Your task to perform on an android device: Do I have any events this weekend? Image 0: 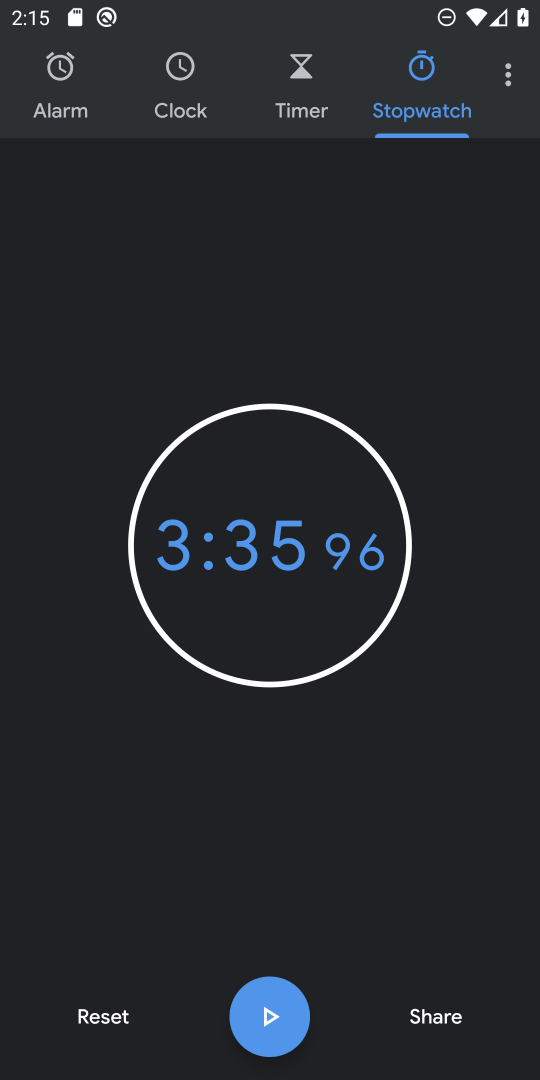
Step 0: press home button
Your task to perform on an android device: Do I have any events this weekend? Image 1: 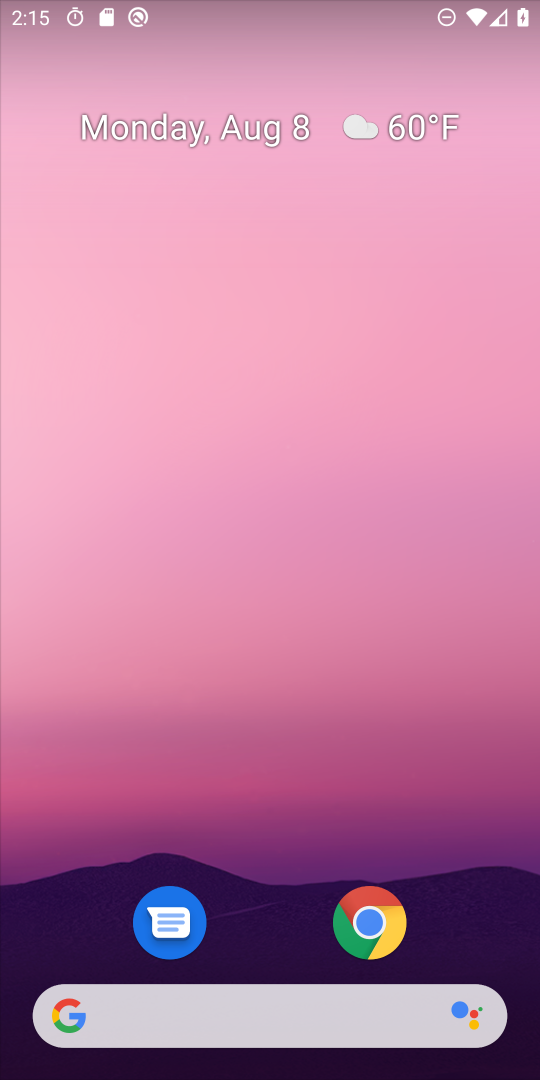
Step 1: drag from (256, 863) to (308, 235)
Your task to perform on an android device: Do I have any events this weekend? Image 2: 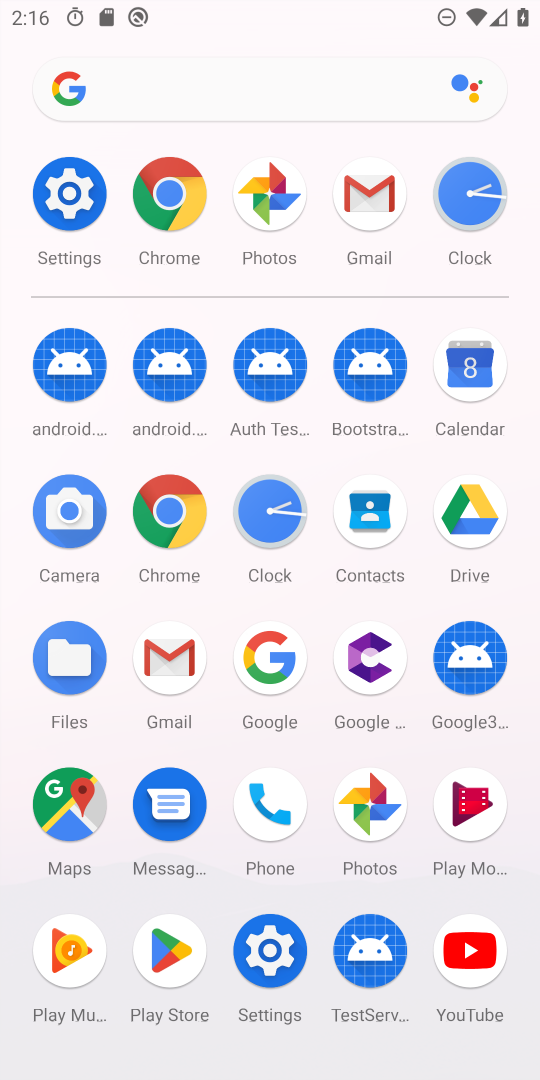
Step 2: click (478, 362)
Your task to perform on an android device: Do I have any events this weekend? Image 3: 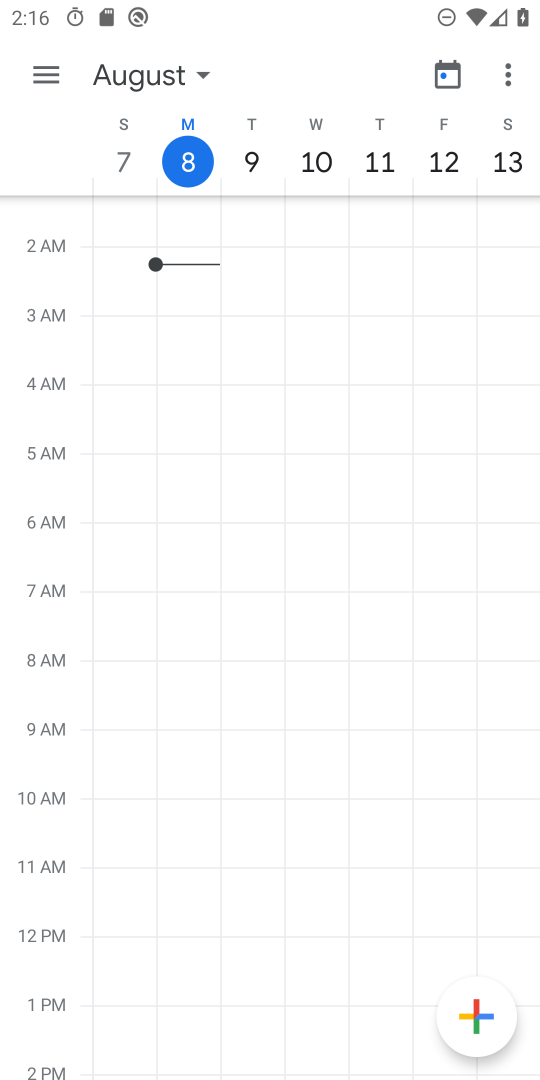
Step 3: click (522, 153)
Your task to perform on an android device: Do I have any events this weekend? Image 4: 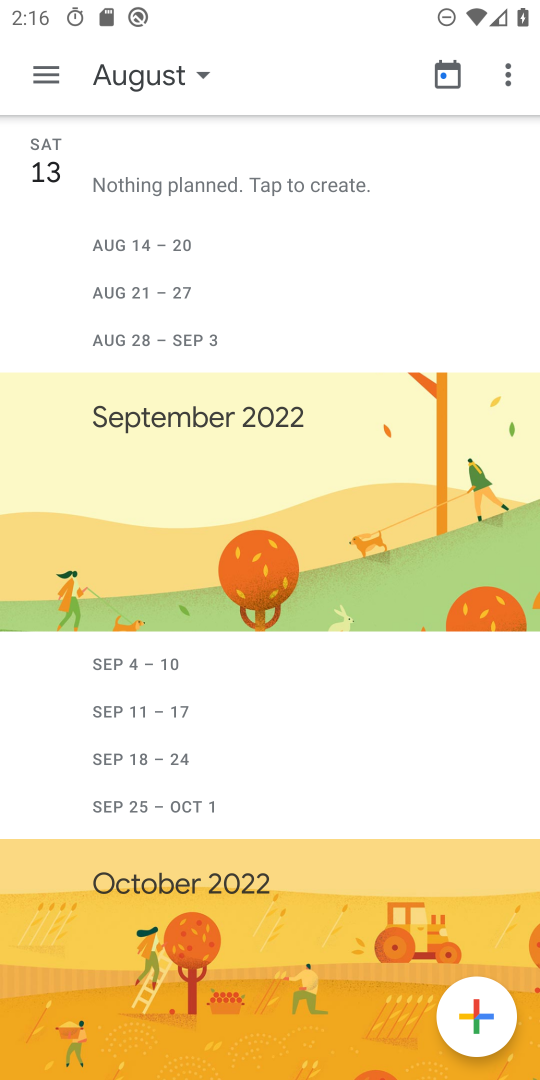
Step 4: task complete